Your task to perform on an android device: see tabs open on other devices in the chrome app Image 0: 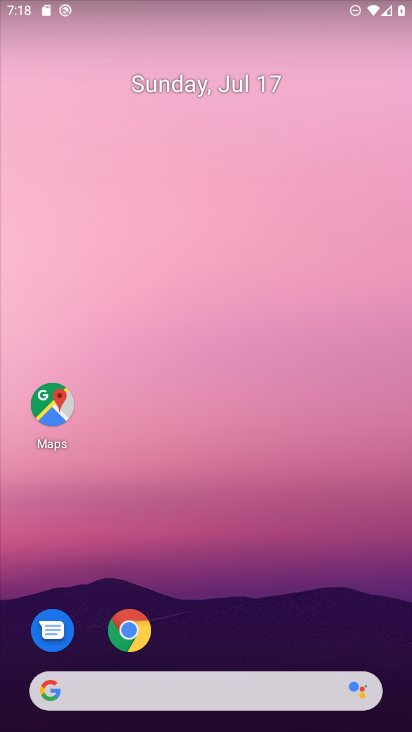
Step 0: drag from (371, 617) to (251, 30)
Your task to perform on an android device: see tabs open on other devices in the chrome app Image 1: 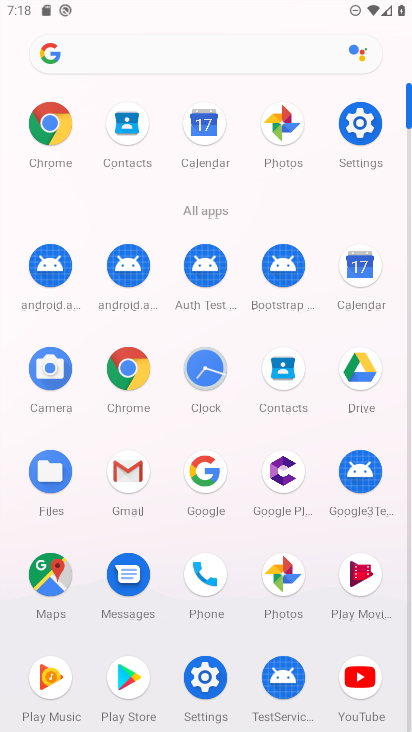
Step 1: click (34, 137)
Your task to perform on an android device: see tabs open on other devices in the chrome app Image 2: 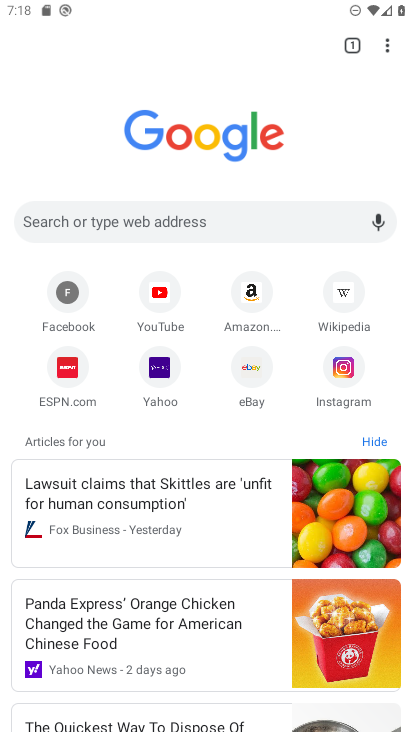
Step 2: click (388, 35)
Your task to perform on an android device: see tabs open on other devices in the chrome app Image 3: 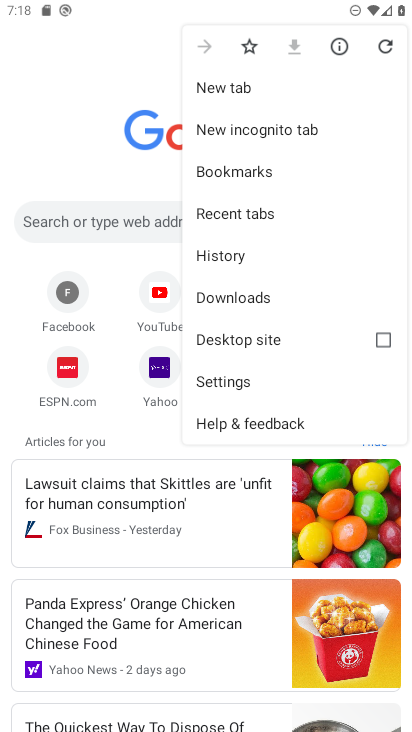
Step 3: task complete